Your task to perform on an android device: search for starred emails in the gmail app Image 0: 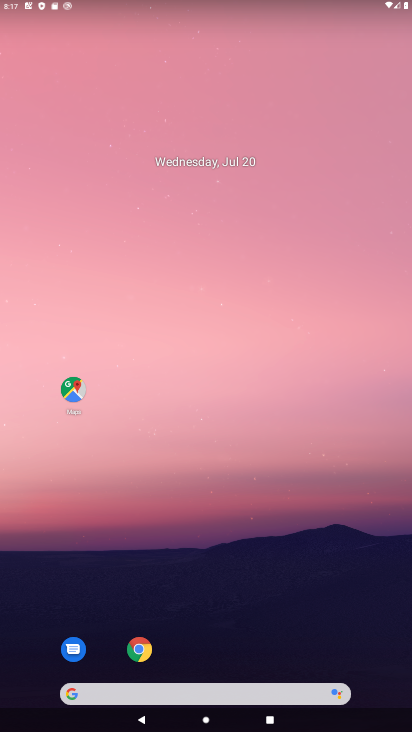
Step 0: drag from (164, 695) to (192, 200)
Your task to perform on an android device: search for starred emails in the gmail app Image 1: 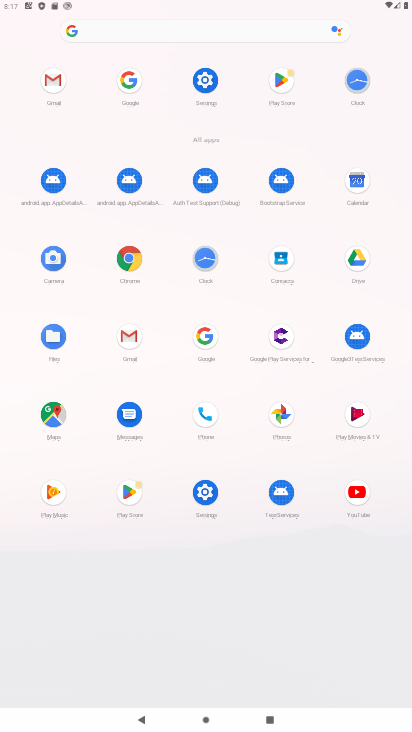
Step 1: click (53, 79)
Your task to perform on an android device: search for starred emails in the gmail app Image 2: 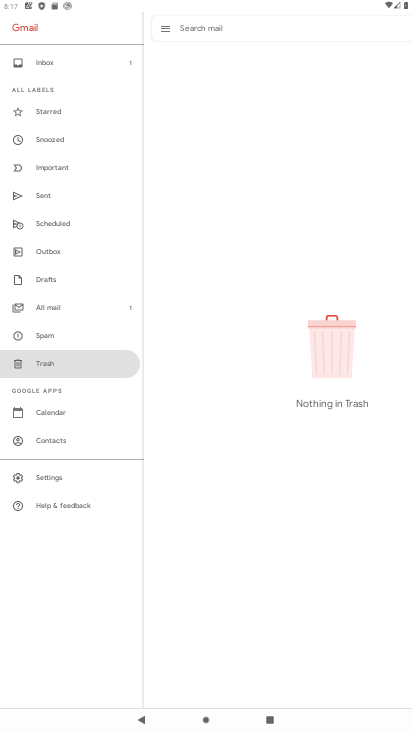
Step 2: click (57, 113)
Your task to perform on an android device: search for starred emails in the gmail app Image 3: 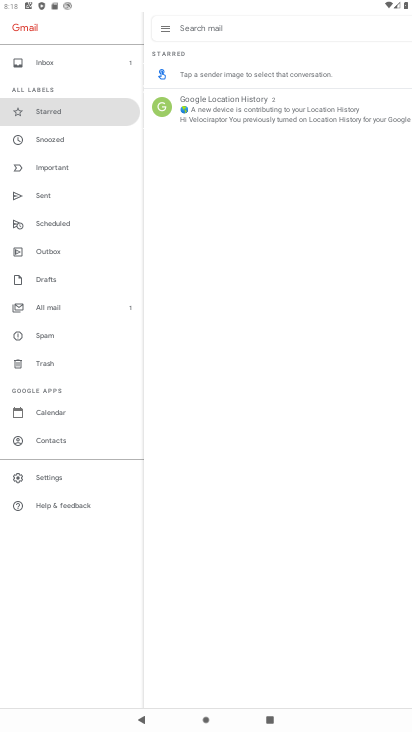
Step 3: click (216, 114)
Your task to perform on an android device: search for starred emails in the gmail app Image 4: 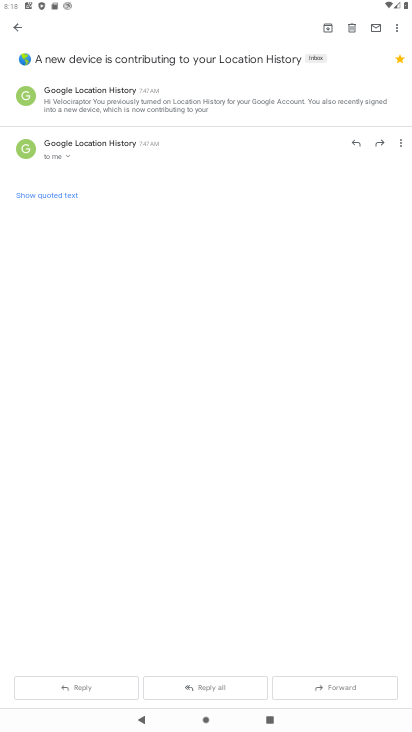
Step 4: task complete